Your task to perform on an android device: Open Google Maps and go to "Timeline" Image 0: 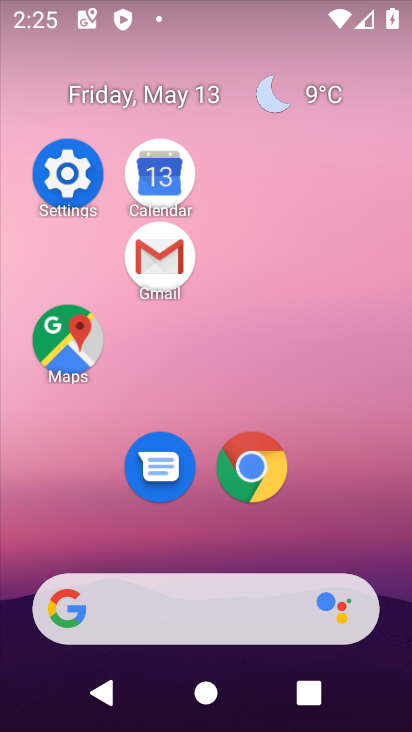
Step 0: click (80, 343)
Your task to perform on an android device: Open Google Maps and go to "Timeline" Image 1: 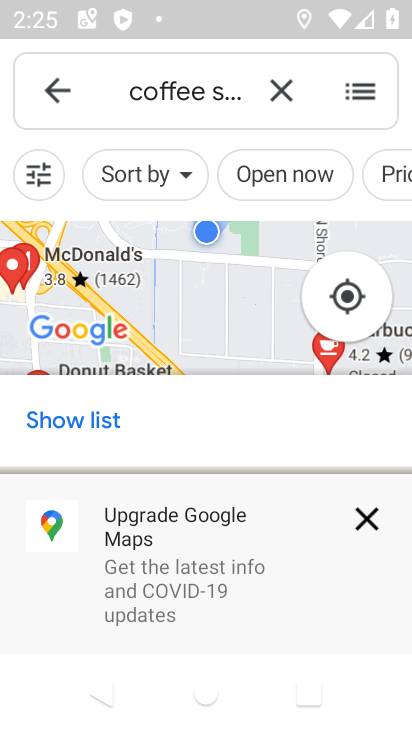
Step 1: click (44, 84)
Your task to perform on an android device: Open Google Maps and go to "Timeline" Image 2: 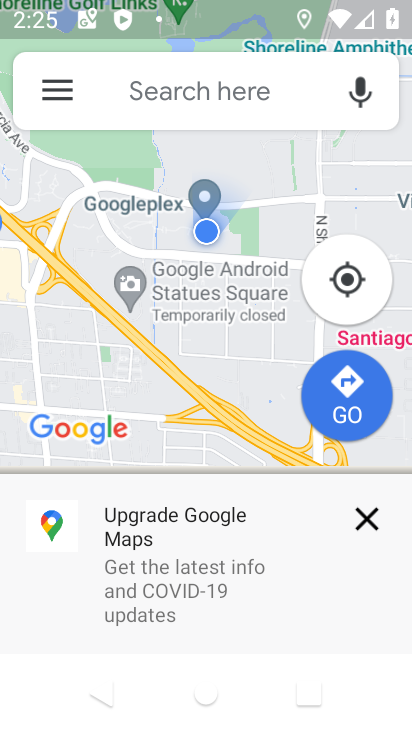
Step 2: click (44, 84)
Your task to perform on an android device: Open Google Maps and go to "Timeline" Image 3: 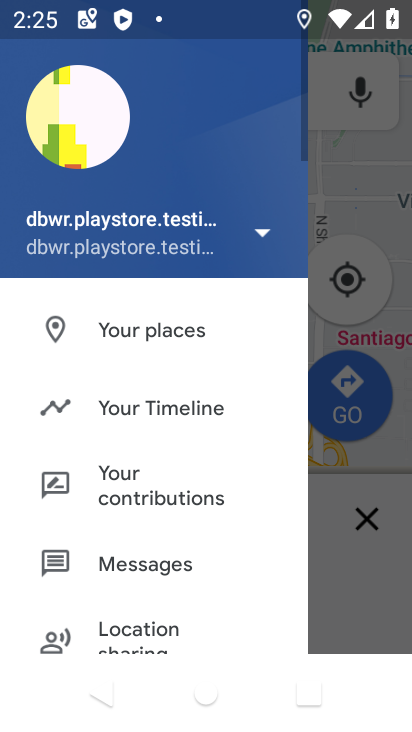
Step 3: click (147, 414)
Your task to perform on an android device: Open Google Maps and go to "Timeline" Image 4: 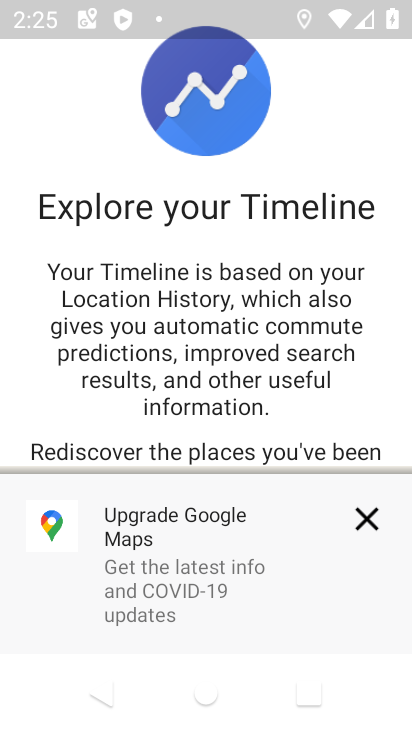
Step 4: click (369, 508)
Your task to perform on an android device: Open Google Maps and go to "Timeline" Image 5: 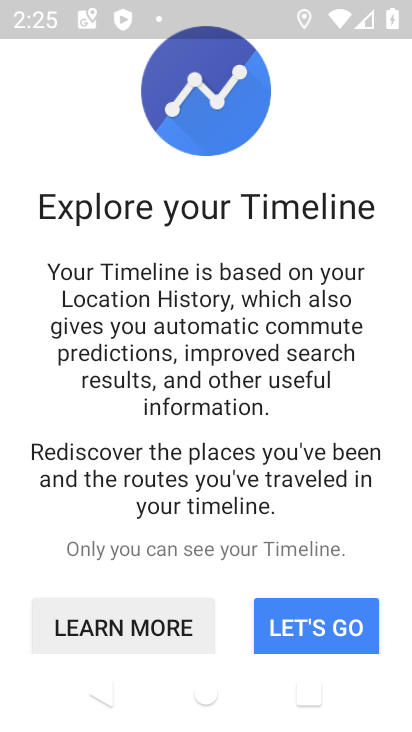
Step 5: click (320, 610)
Your task to perform on an android device: Open Google Maps and go to "Timeline" Image 6: 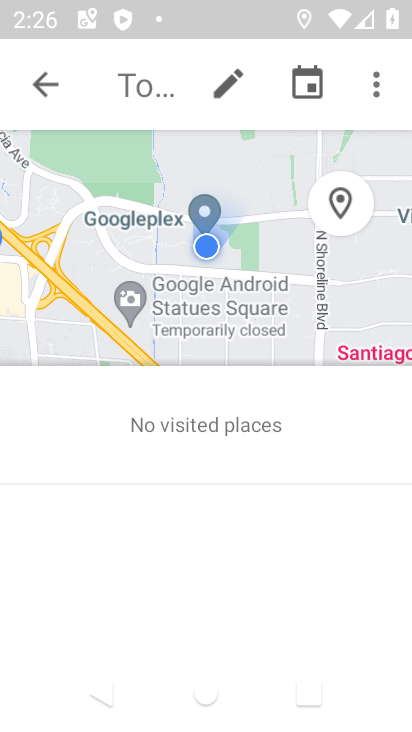
Step 6: task complete